Your task to perform on an android device: open app "Adobe Express: Graphic Design" (install if not already installed) and enter user name: "deliveries@gmail.com" and password: "regimentation" Image 0: 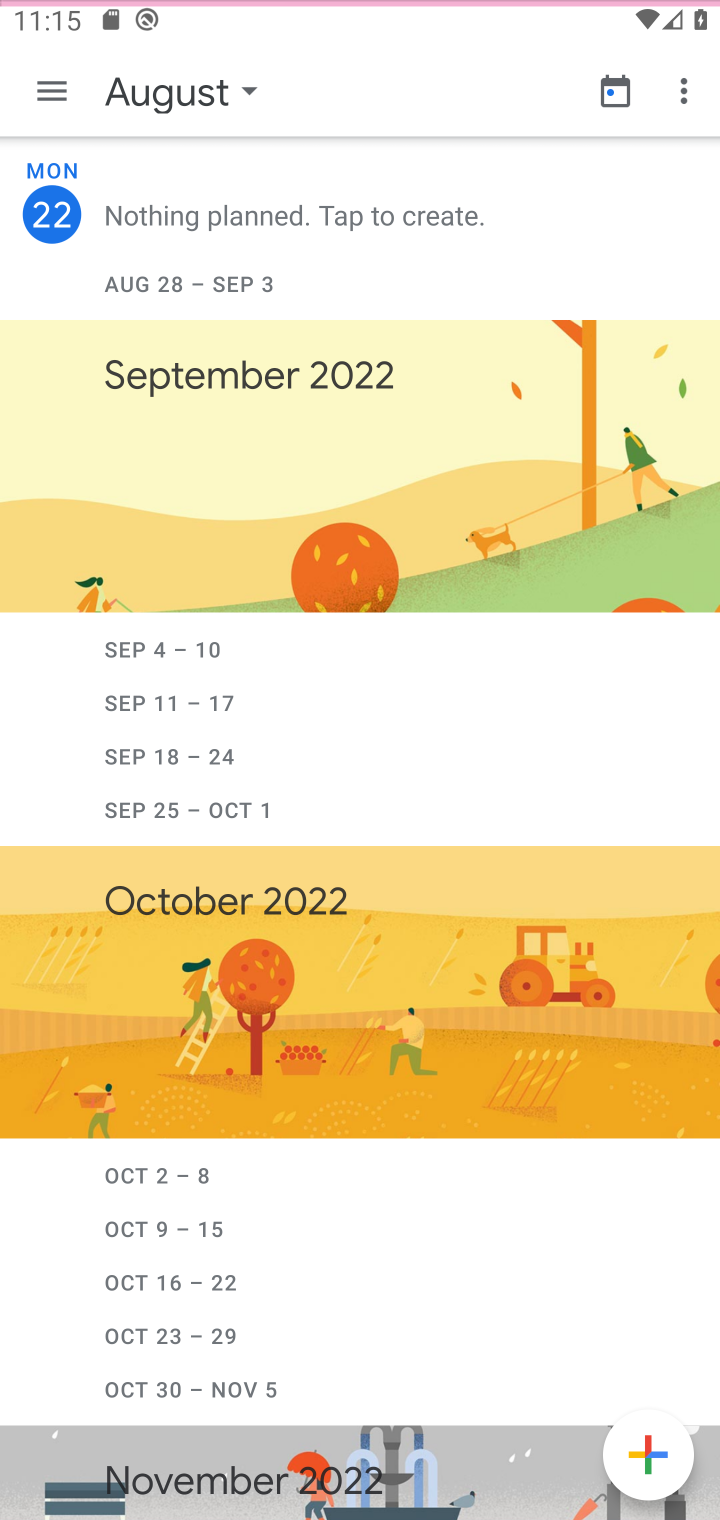
Step 0: press home button
Your task to perform on an android device: open app "Adobe Express: Graphic Design" (install if not already installed) and enter user name: "deliveries@gmail.com" and password: "regimentation" Image 1: 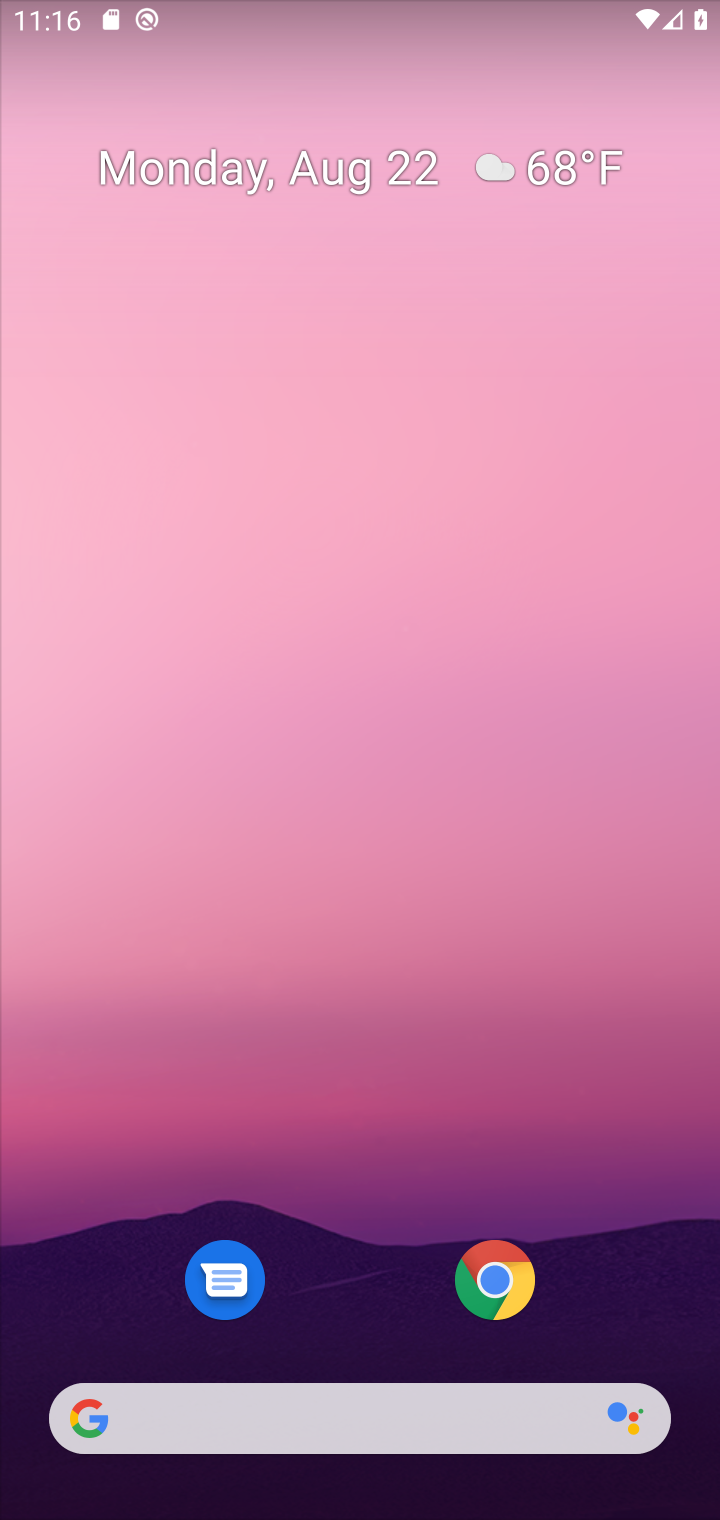
Step 1: press home button
Your task to perform on an android device: open app "Adobe Express: Graphic Design" (install if not already installed) and enter user name: "deliveries@gmail.com" and password: "regimentation" Image 2: 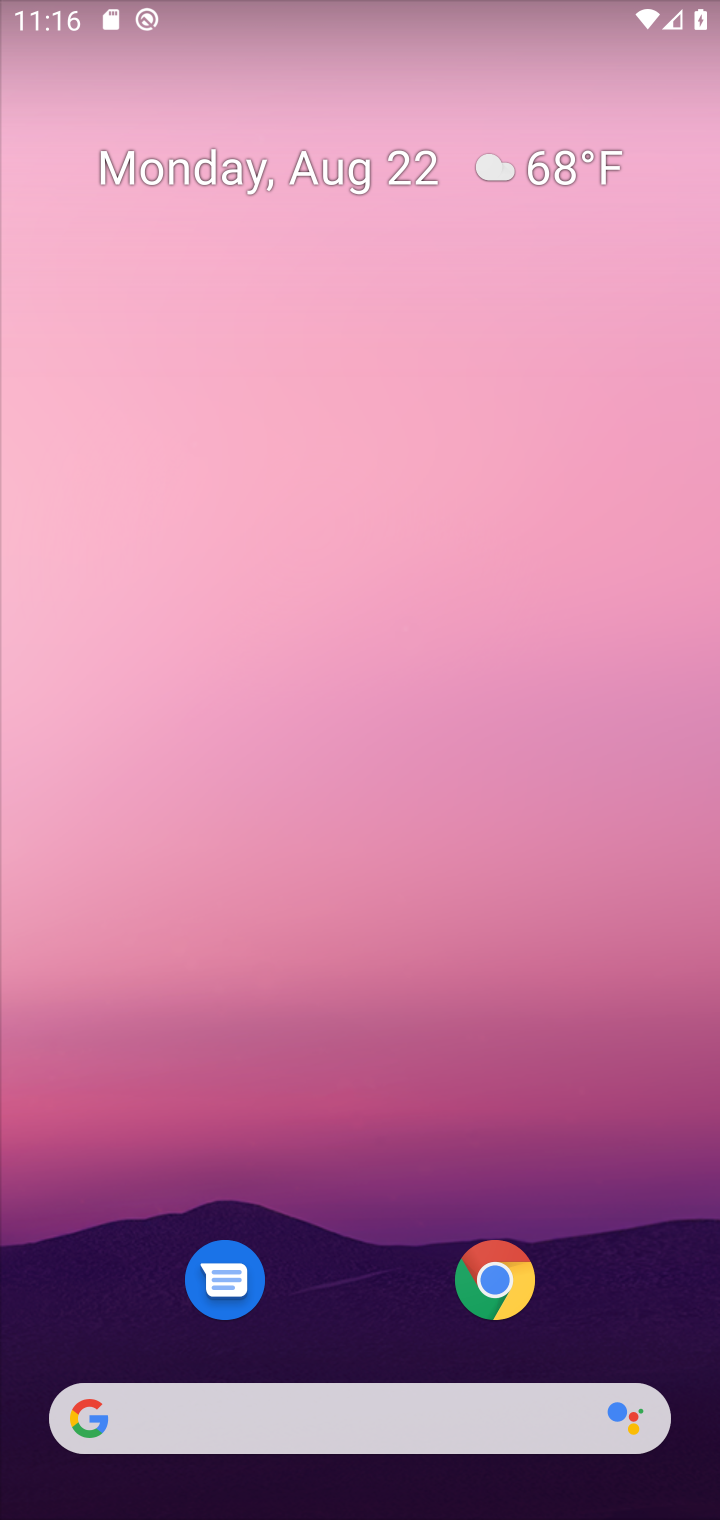
Step 2: press home button
Your task to perform on an android device: open app "Adobe Express: Graphic Design" (install if not already installed) and enter user name: "deliveries@gmail.com" and password: "regimentation" Image 3: 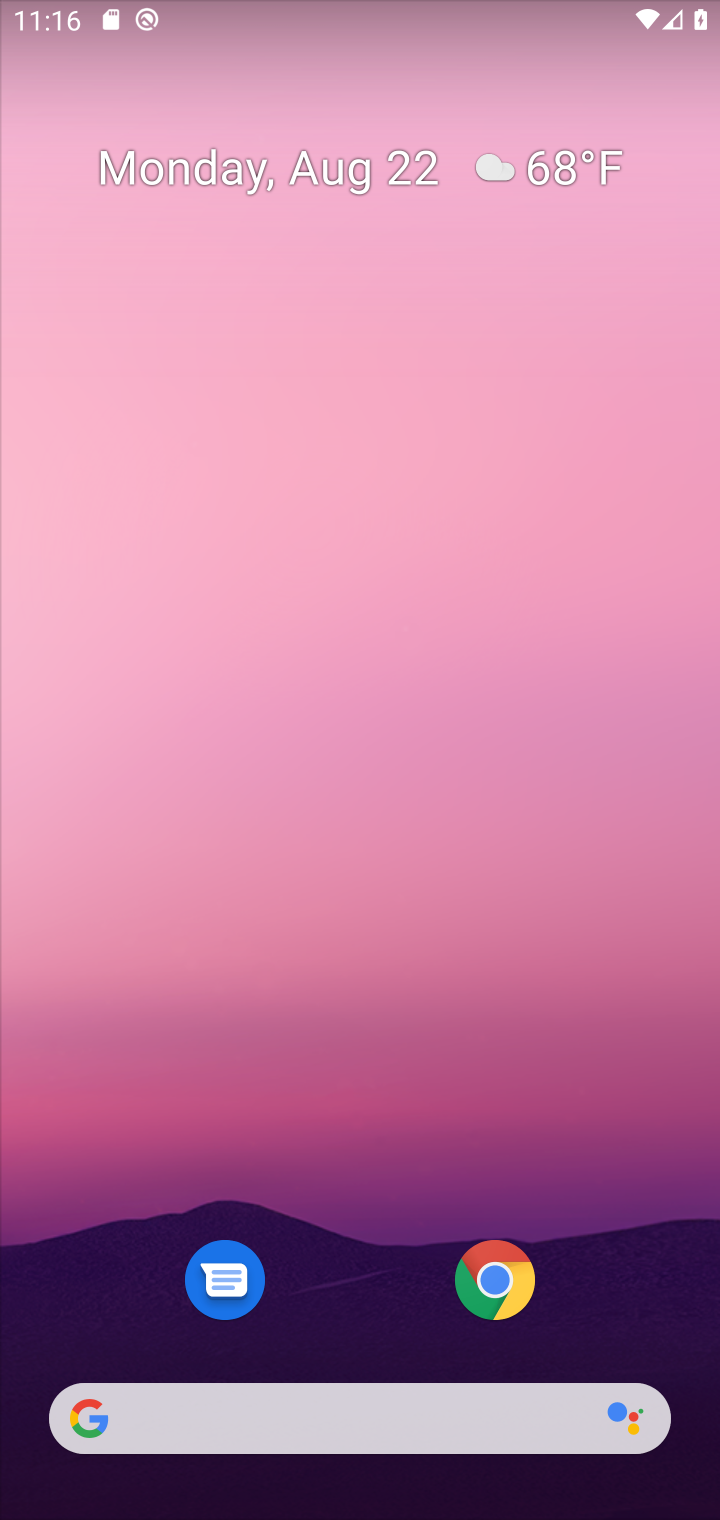
Step 3: drag from (369, 1324) to (494, 29)
Your task to perform on an android device: open app "Adobe Express: Graphic Design" (install if not already installed) and enter user name: "deliveries@gmail.com" and password: "regimentation" Image 4: 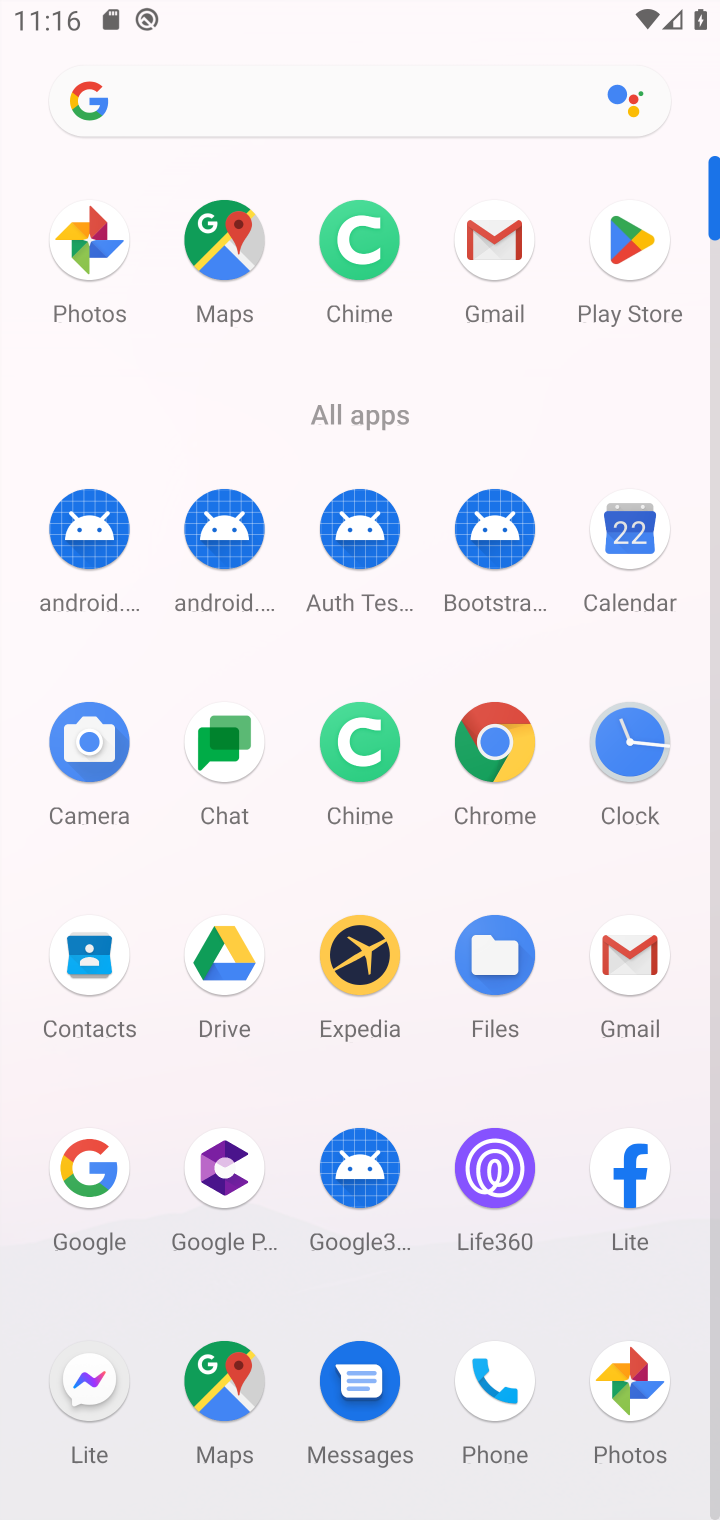
Step 4: click (628, 233)
Your task to perform on an android device: open app "Adobe Express: Graphic Design" (install if not already installed) and enter user name: "deliveries@gmail.com" and password: "regimentation" Image 5: 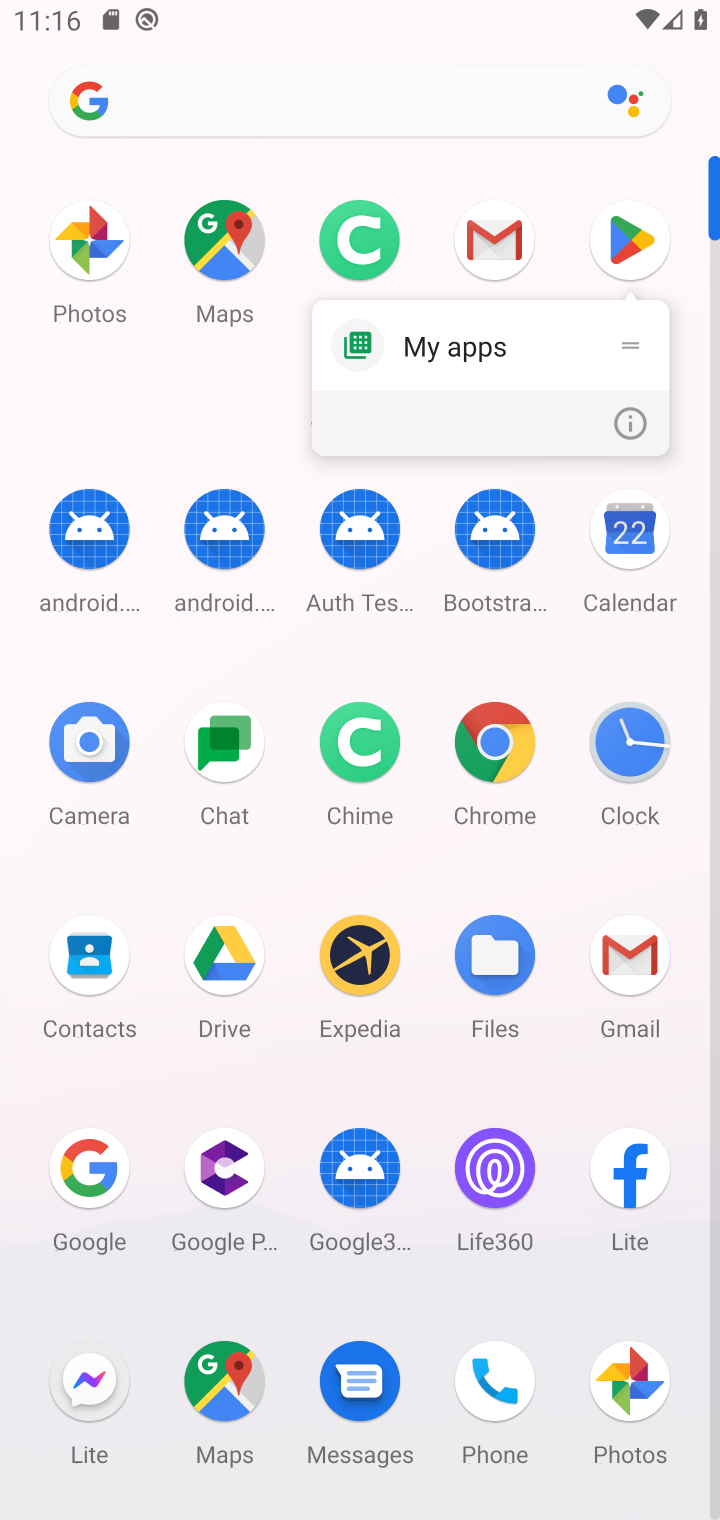
Step 5: click (628, 234)
Your task to perform on an android device: open app "Adobe Express: Graphic Design" (install if not already installed) and enter user name: "deliveries@gmail.com" and password: "regimentation" Image 6: 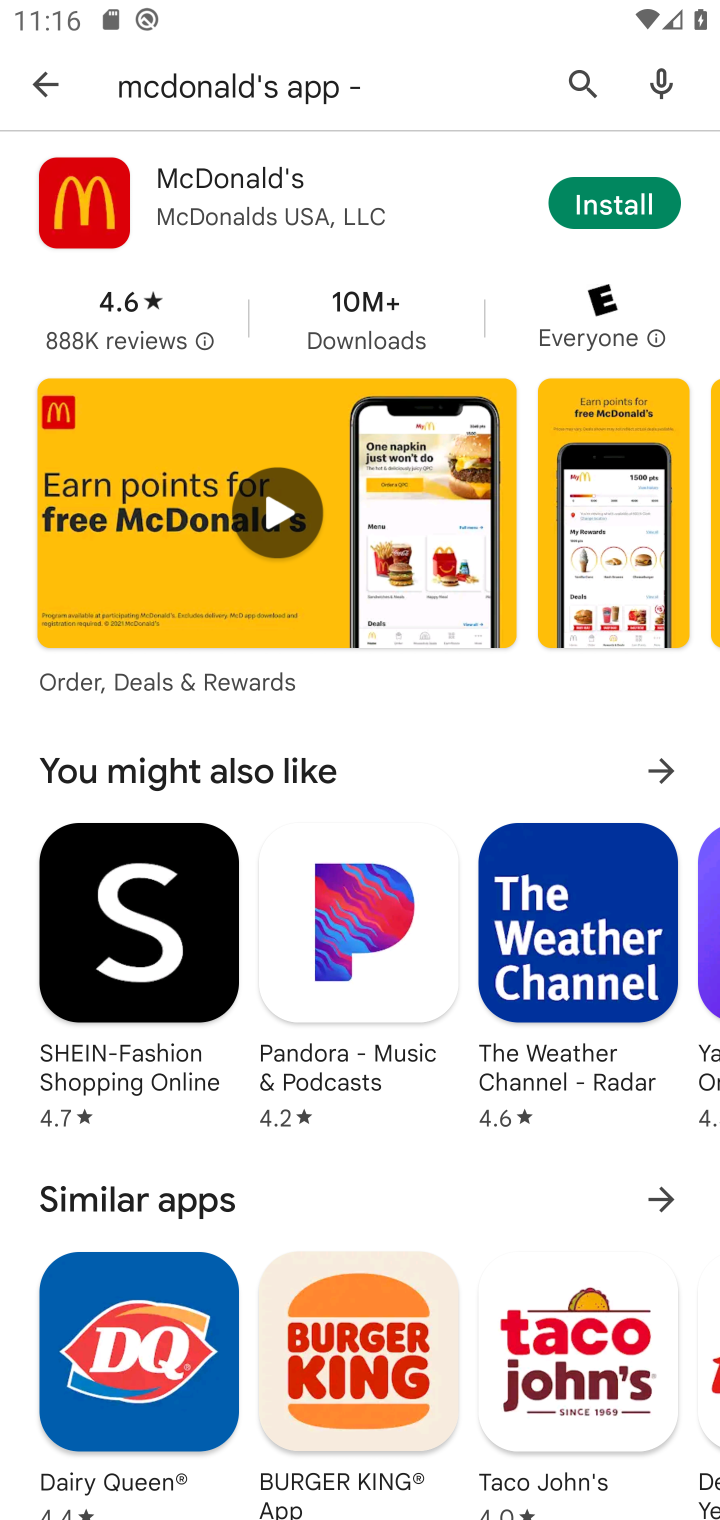
Step 6: click (571, 67)
Your task to perform on an android device: open app "Adobe Express: Graphic Design" (install if not already installed) and enter user name: "deliveries@gmail.com" and password: "regimentation" Image 7: 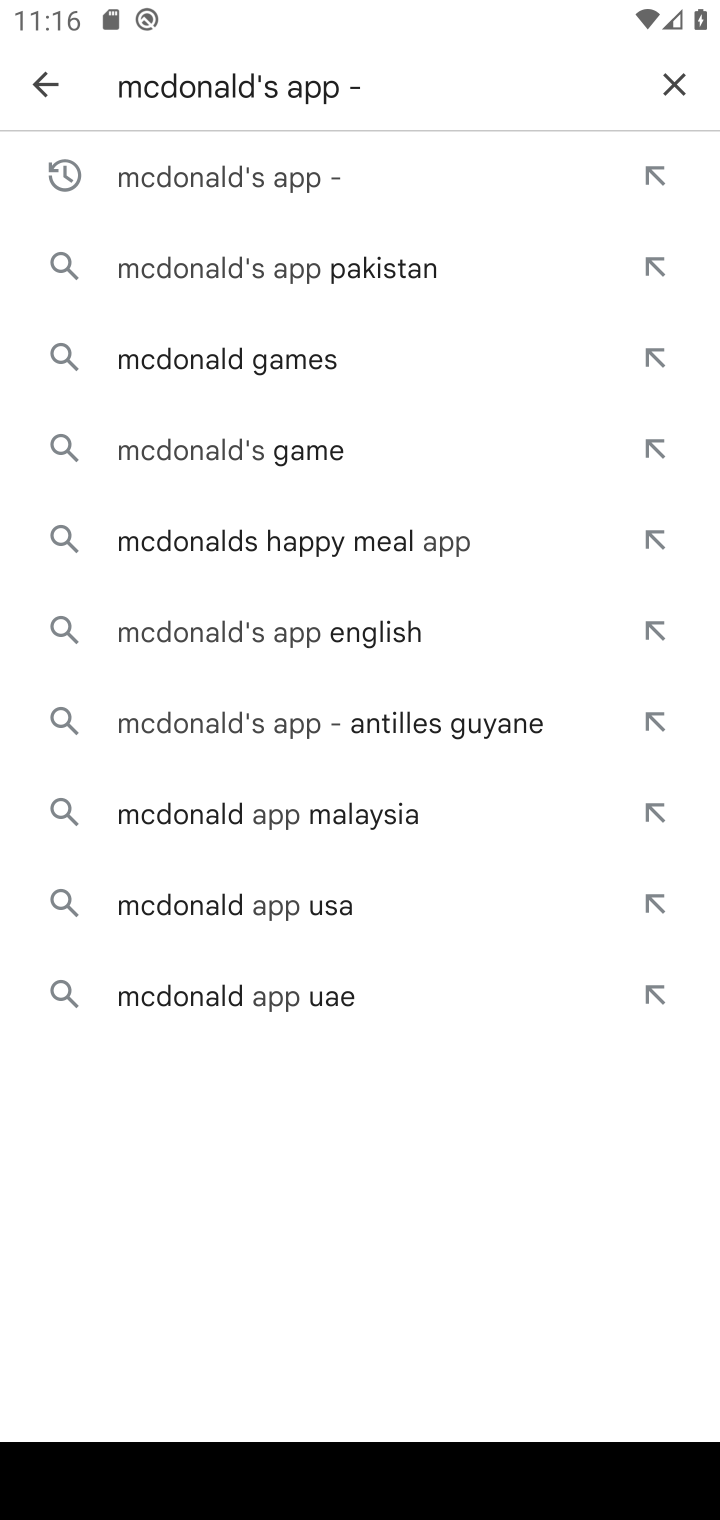
Step 7: click (688, 77)
Your task to perform on an android device: open app "Adobe Express: Graphic Design" (install if not already installed) and enter user name: "deliveries@gmail.com" and password: "regimentation" Image 8: 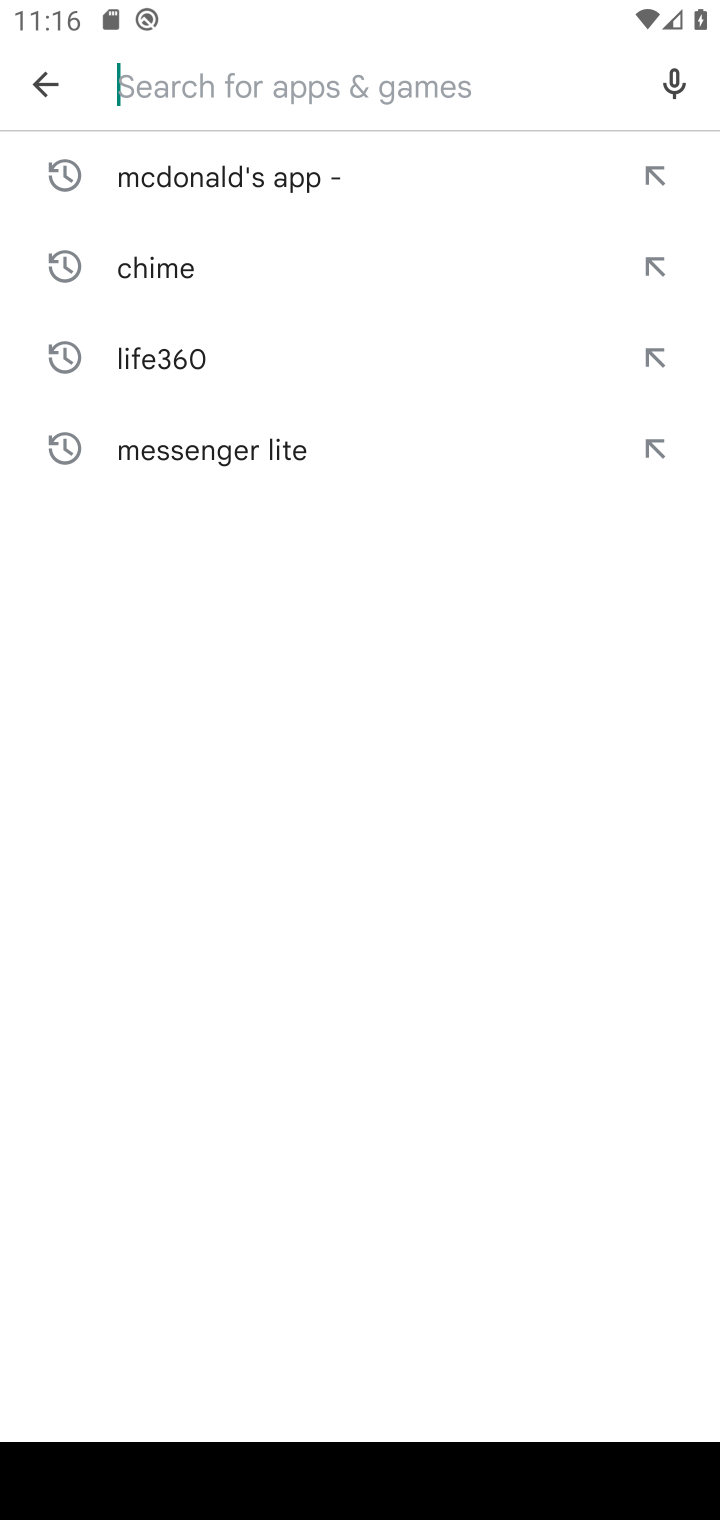
Step 8: type "Adobe Express: Graphic Design"
Your task to perform on an android device: open app "Adobe Express: Graphic Design" (install if not already installed) and enter user name: "deliveries@gmail.com" and password: "regimentation" Image 9: 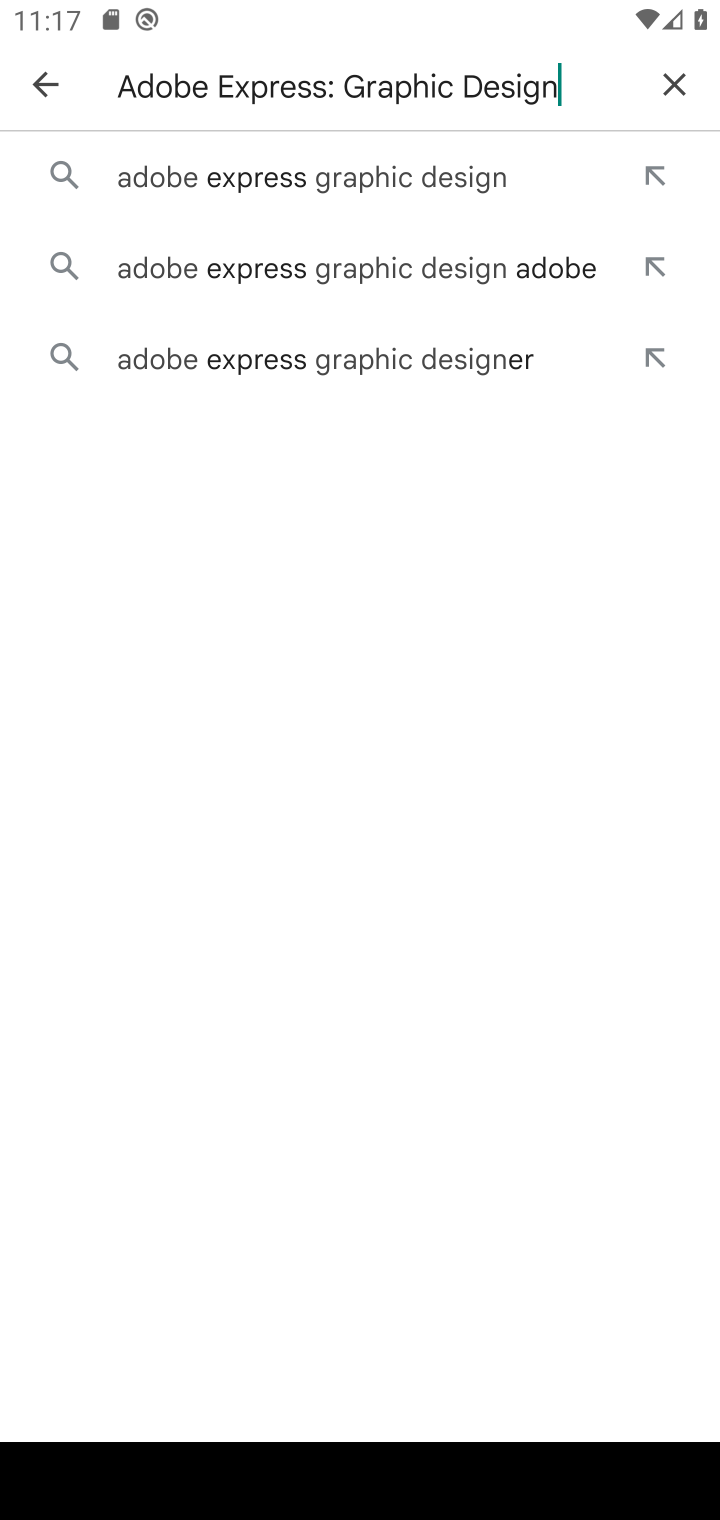
Step 9: click (392, 154)
Your task to perform on an android device: open app "Adobe Express: Graphic Design" (install if not already installed) and enter user name: "deliveries@gmail.com" and password: "regimentation" Image 10: 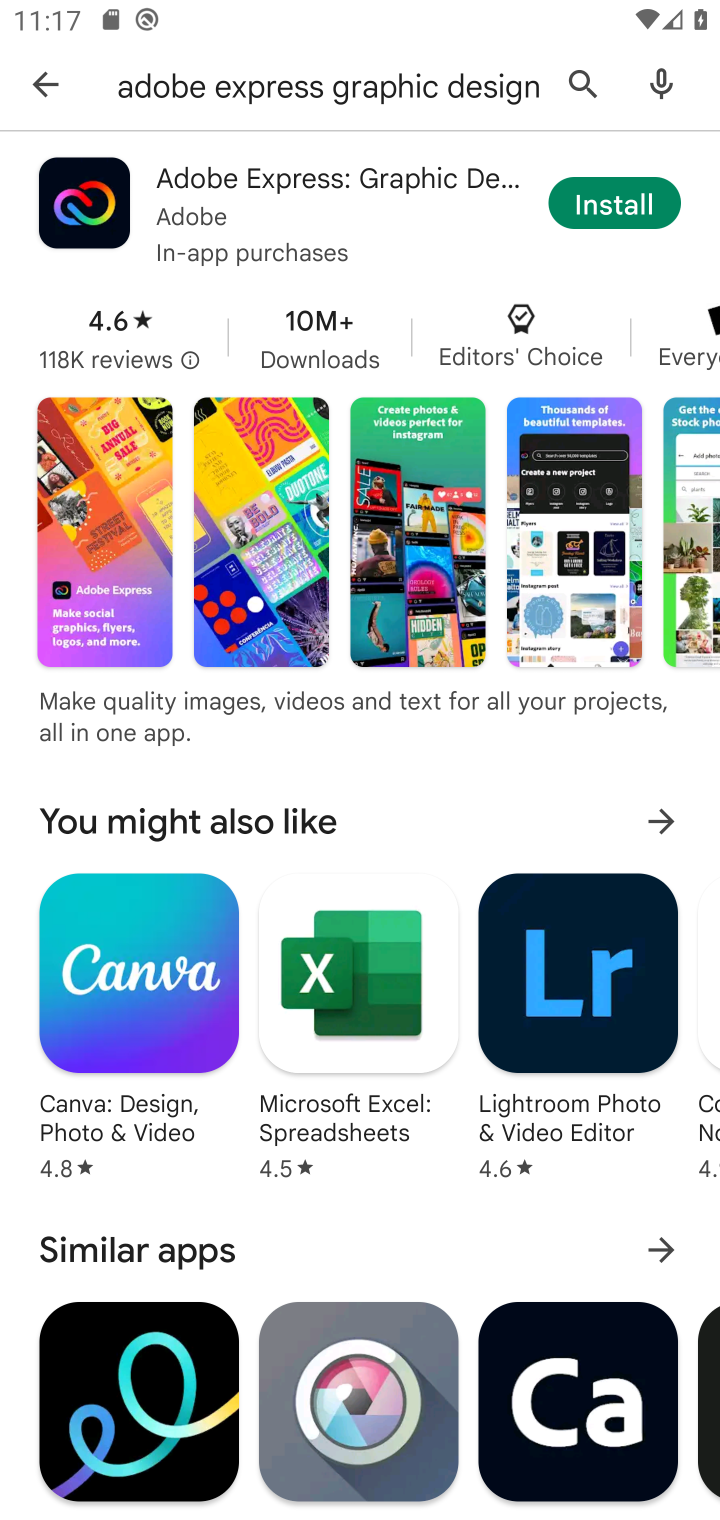
Step 10: click (597, 192)
Your task to perform on an android device: open app "Adobe Express: Graphic Design" (install if not already installed) and enter user name: "deliveries@gmail.com" and password: "regimentation" Image 11: 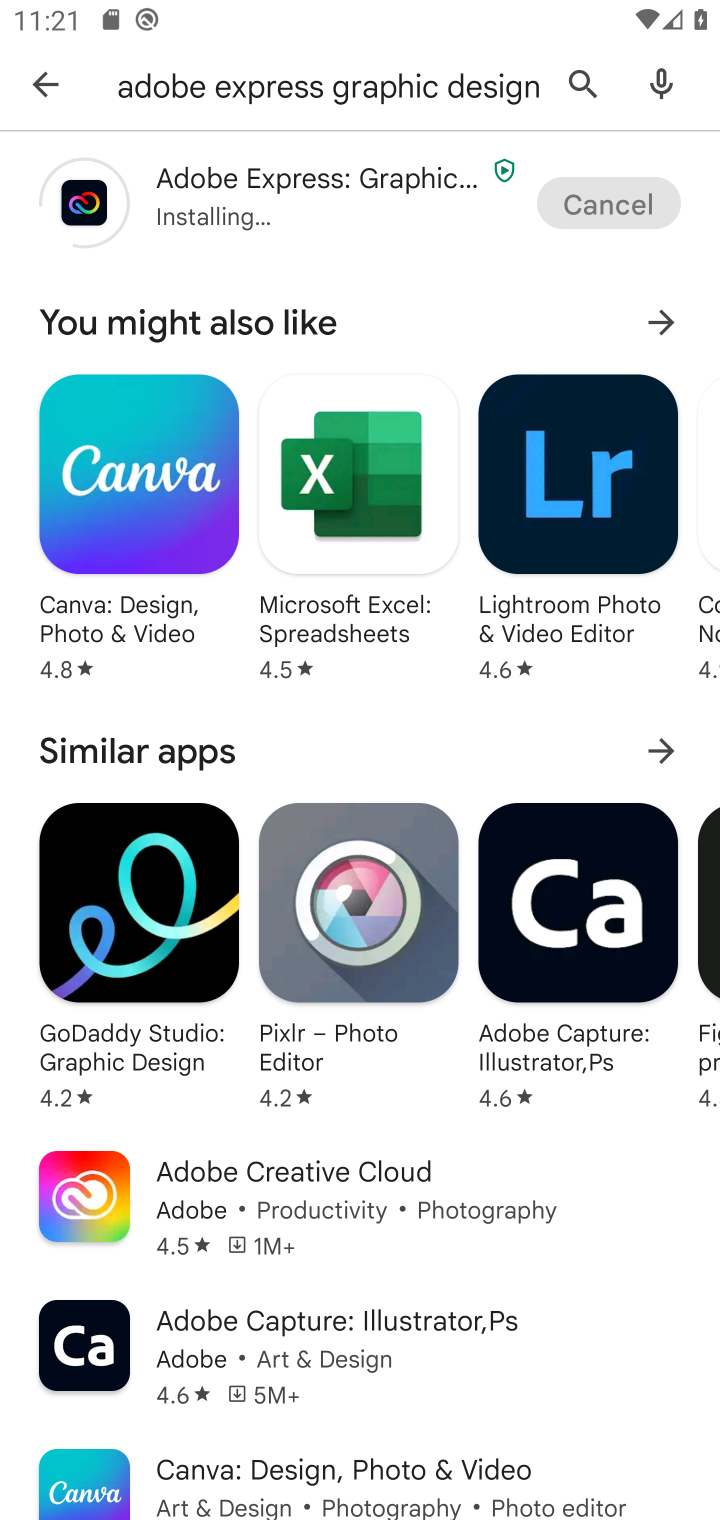
Step 11: click (190, 197)
Your task to perform on an android device: open app "Adobe Express: Graphic Design" (install if not already installed) and enter user name: "deliveries@gmail.com" and password: "regimentation" Image 12: 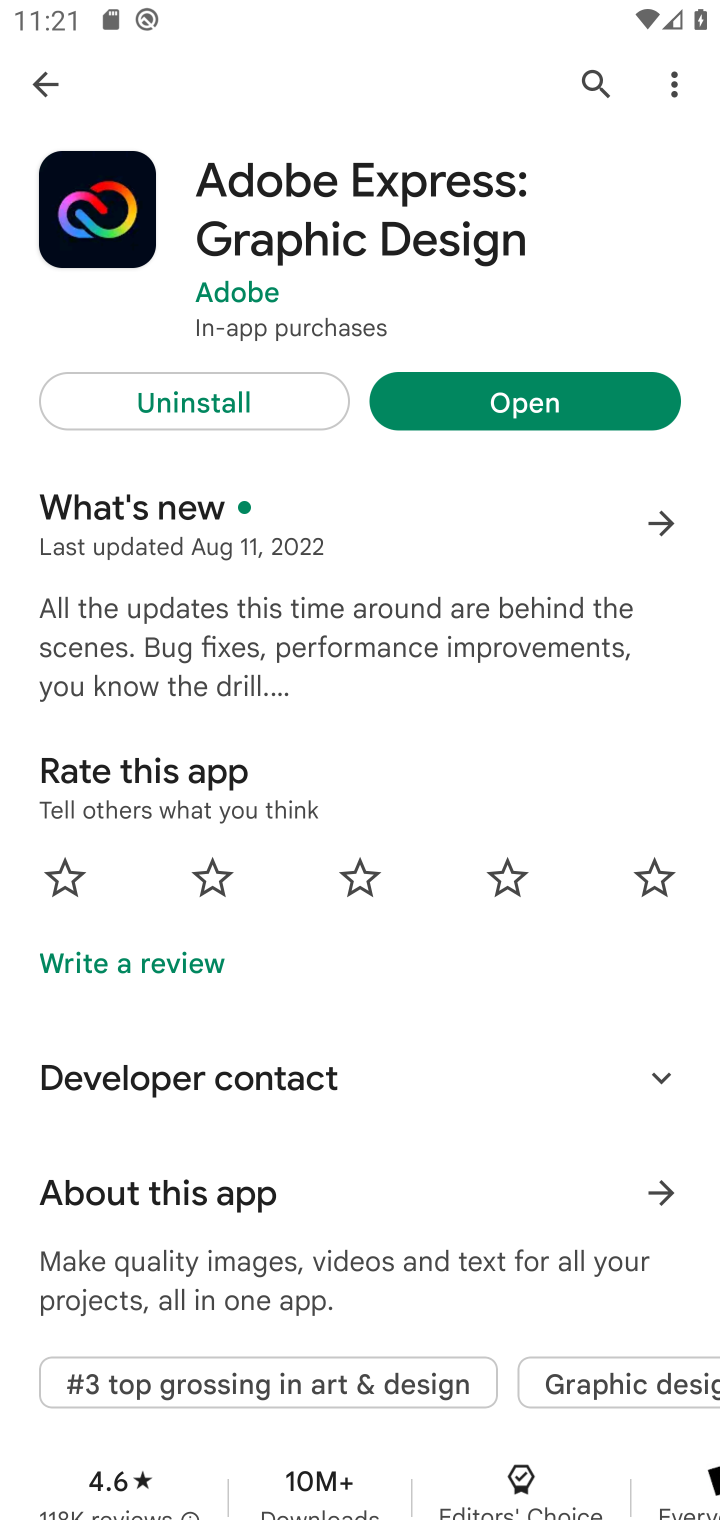
Step 12: click (539, 408)
Your task to perform on an android device: open app "Adobe Express: Graphic Design" (install if not already installed) and enter user name: "deliveries@gmail.com" and password: "regimentation" Image 13: 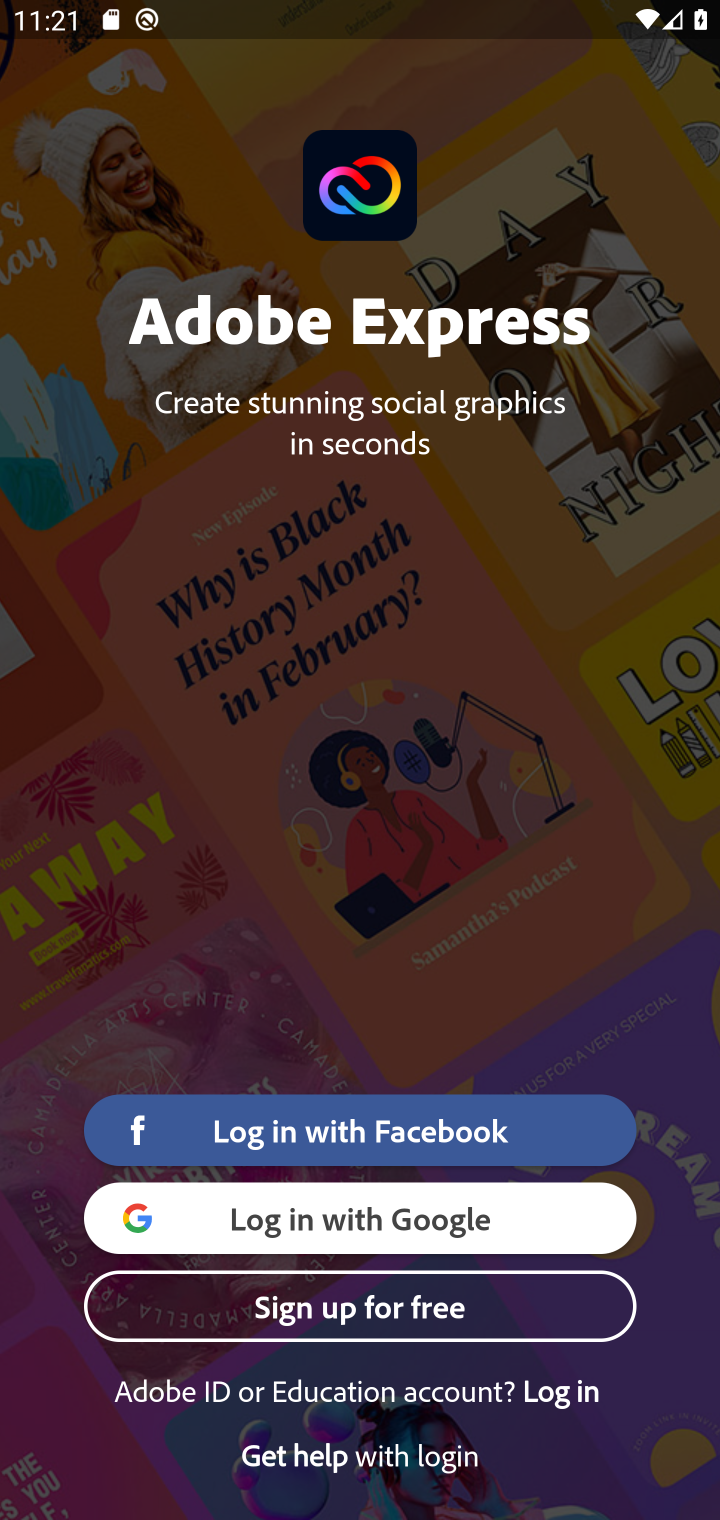
Step 13: click (556, 1394)
Your task to perform on an android device: open app "Adobe Express: Graphic Design" (install if not already installed) and enter user name: "deliveries@gmail.com" and password: "regimentation" Image 14: 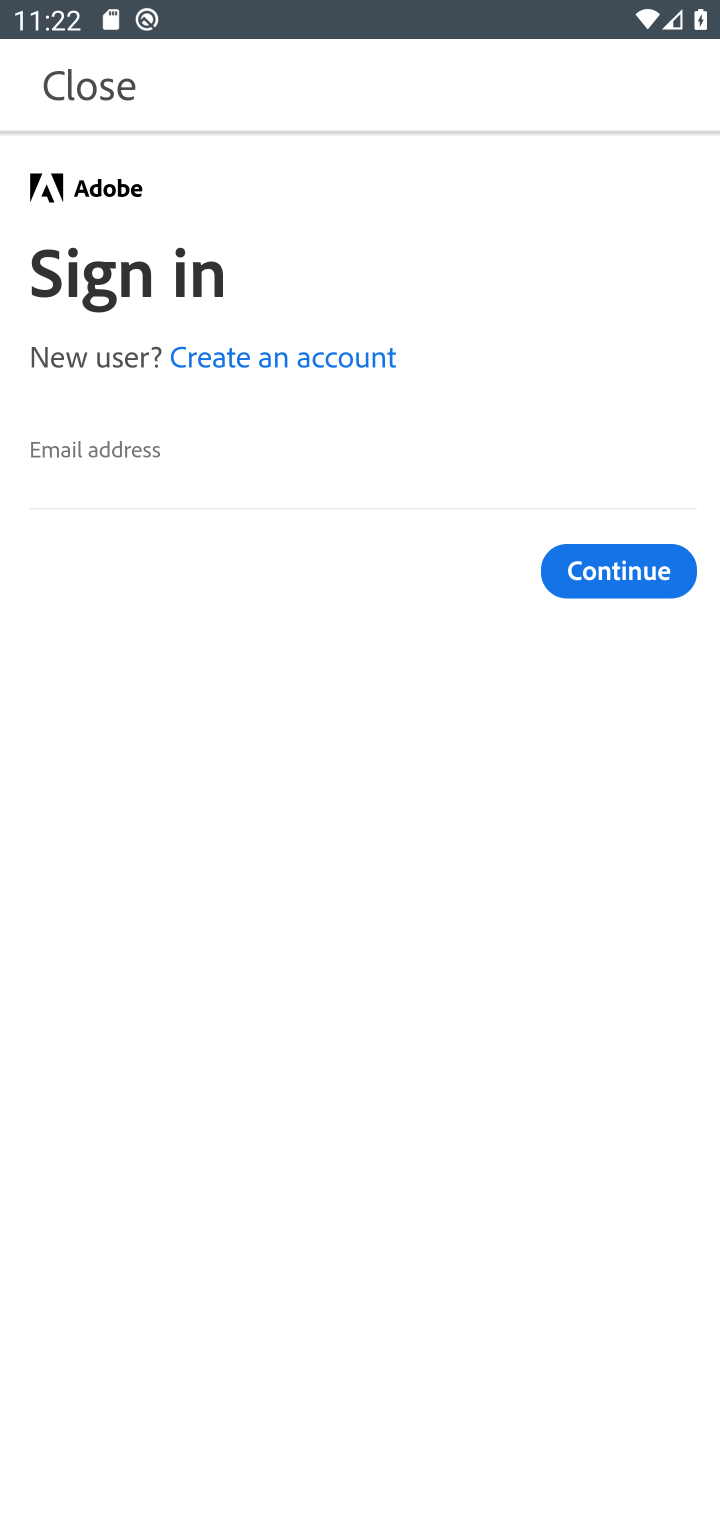
Step 14: click (626, 576)
Your task to perform on an android device: open app "Adobe Express: Graphic Design" (install if not already installed) and enter user name: "deliveries@gmail.com" and password: "regimentation" Image 15: 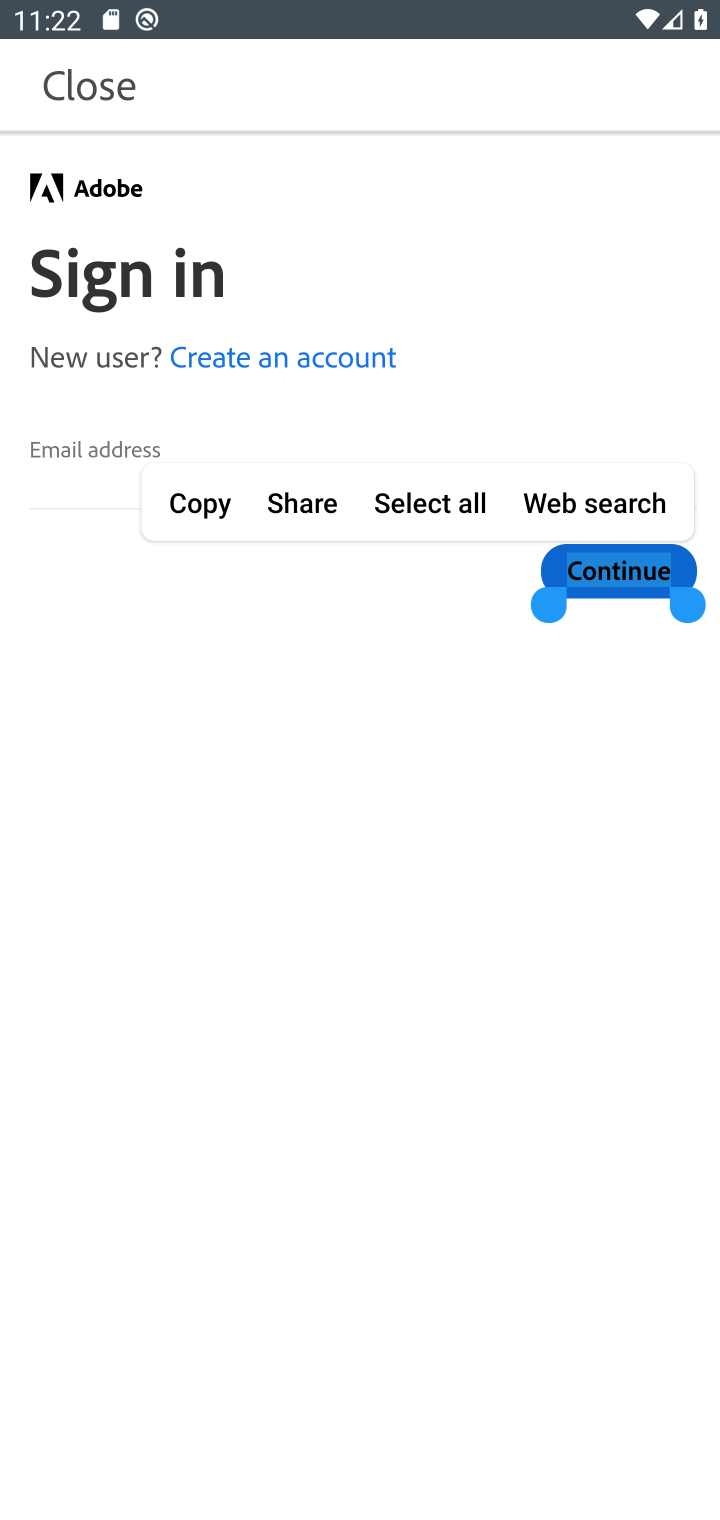
Step 15: click (616, 577)
Your task to perform on an android device: open app "Adobe Express: Graphic Design" (install if not already installed) and enter user name: "deliveries@gmail.com" and password: "regimentation" Image 16: 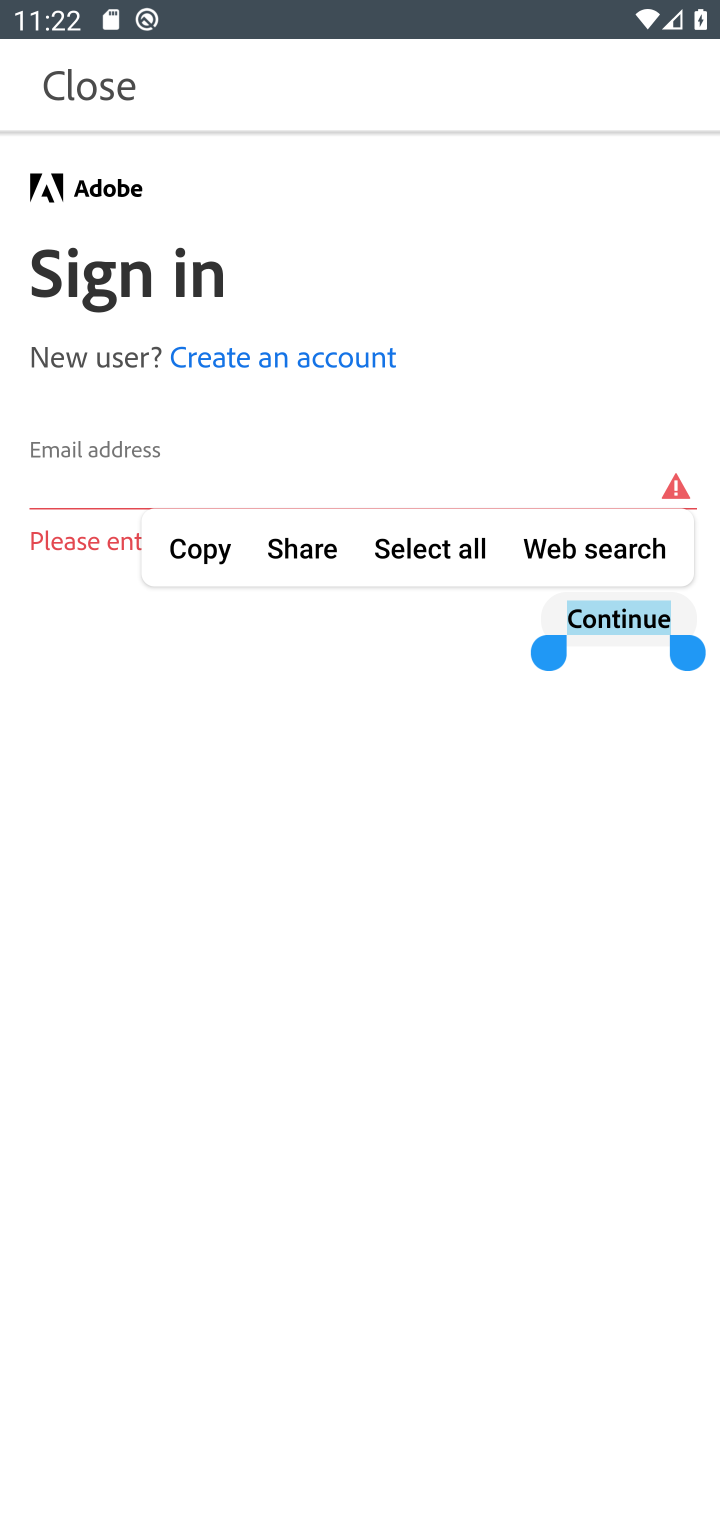
Step 16: task complete